Your task to perform on an android device: open device folders in google photos Image 0: 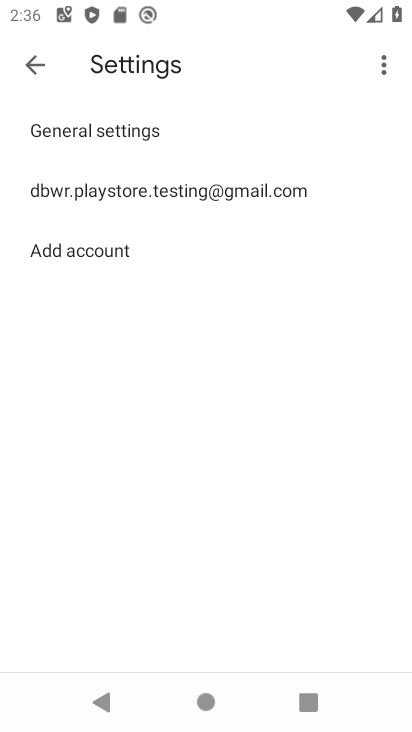
Step 0: press home button
Your task to perform on an android device: open device folders in google photos Image 1: 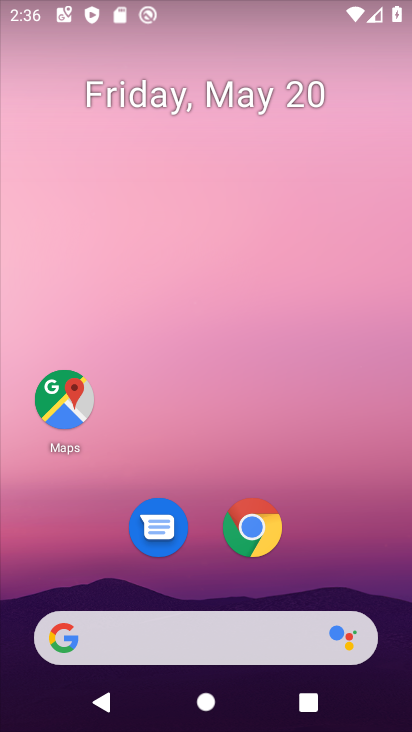
Step 1: drag from (254, 698) to (380, 12)
Your task to perform on an android device: open device folders in google photos Image 2: 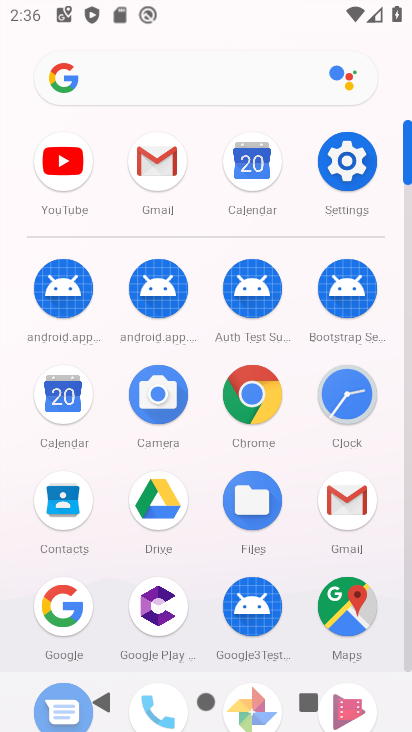
Step 2: click (244, 680)
Your task to perform on an android device: open device folders in google photos Image 3: 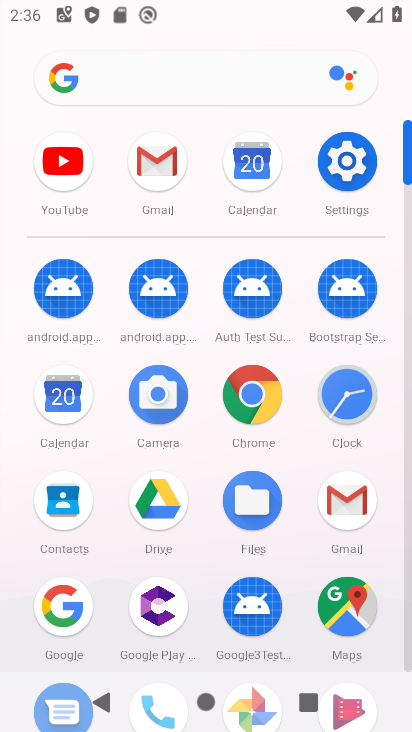
Step 3: drag from (255, 696) to (294, 45)
Your task to perform on an android device: open device folders in google photos Image 4: 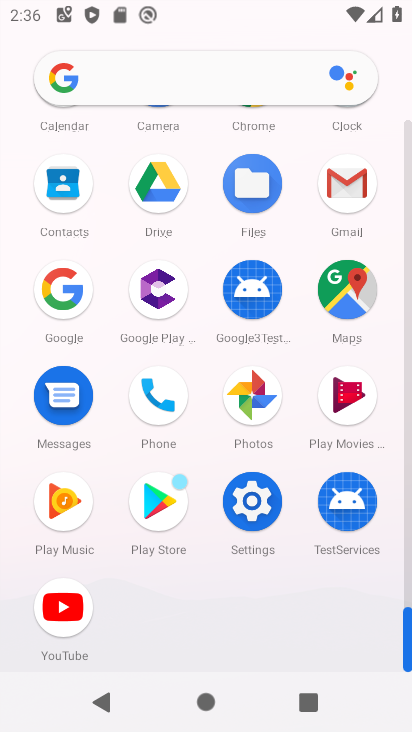
Step 4: click (274, 390)
Your task to perform on an android device: open device folders in google photos Image 5: 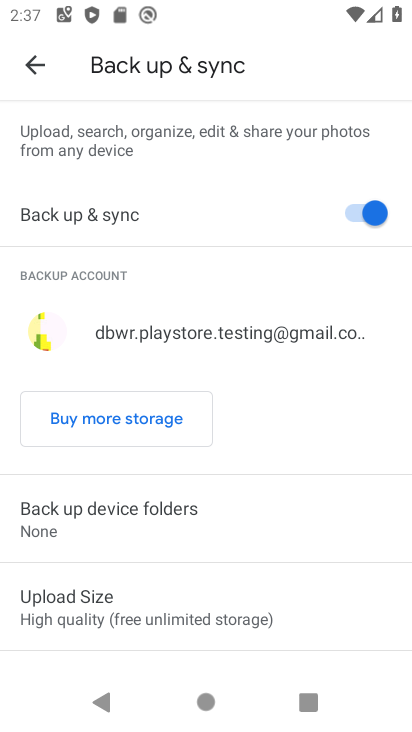
Step 5: drag from (285, 573) to (237, 4)
Your task to perform on an android device: open device folders in google photos Image 6: 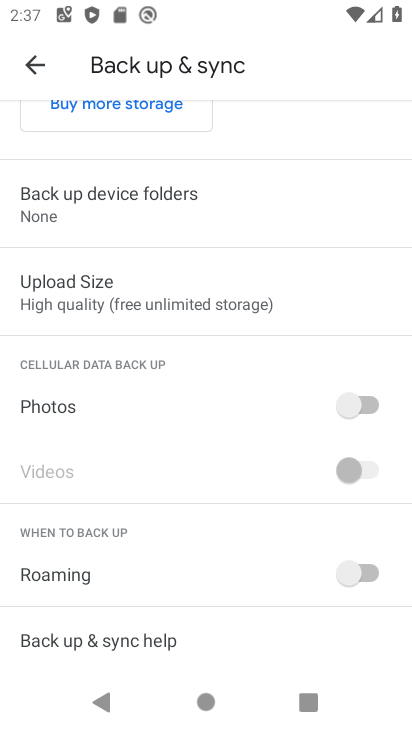
Step 6: drag from (257, 595) to (410, 22)
Your task to perform on an android device: open device folders in google photos Image 7: 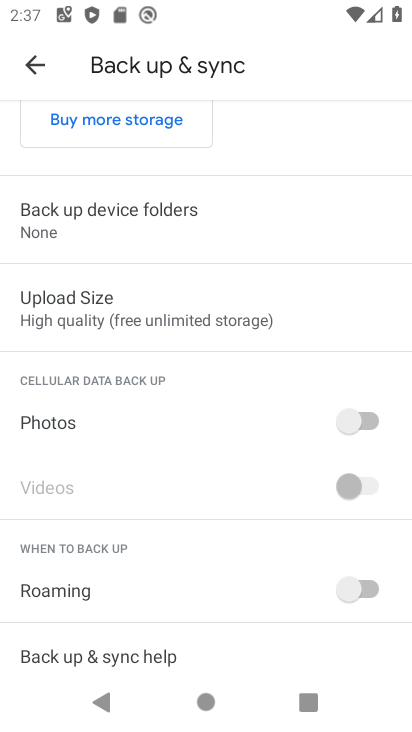
Step 7: click (18, 51)
Your task to perform on an android device: open device folders in google photos Image 8: 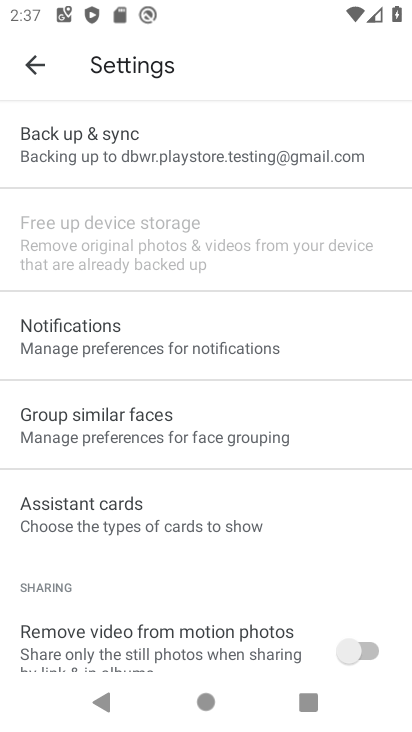
Step 8: click (16, 56)
Your task to perform on an android device: open device folders in google photos Image 9: 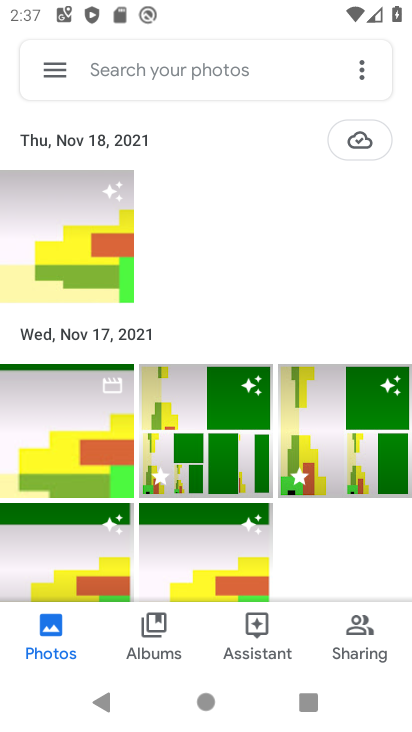
Step 9: click (63, 68)
Your task to perform on an android device: open device folders in google photos Image 10: 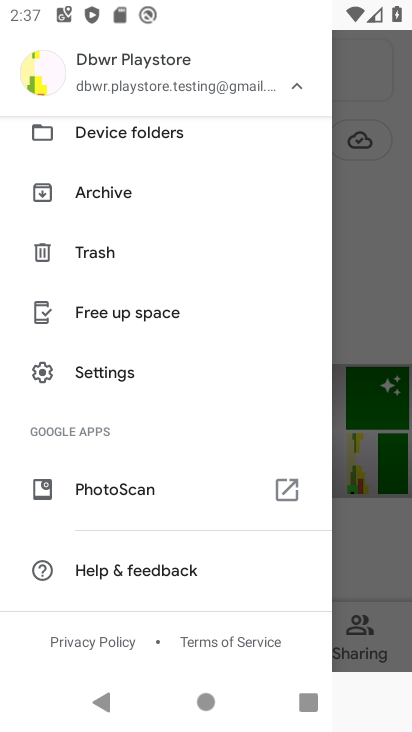
Step 10: click (209, 135)
Your task to perform on an android device: open device folders in google photos Image 11: 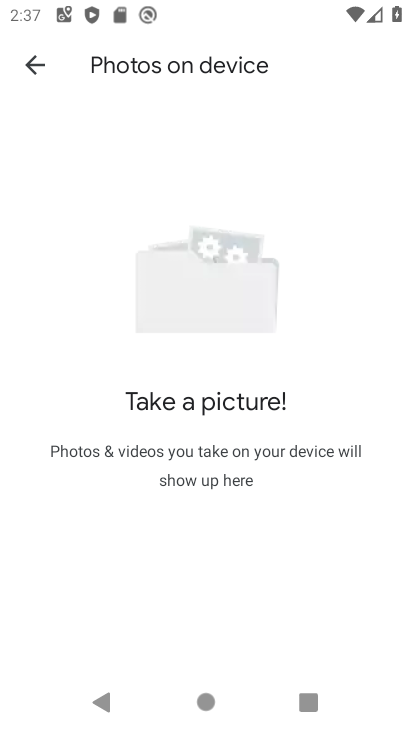
Step 11: task complete